Your task to perform on an android device: allow notifications from all sites in the chrome app Image 0: 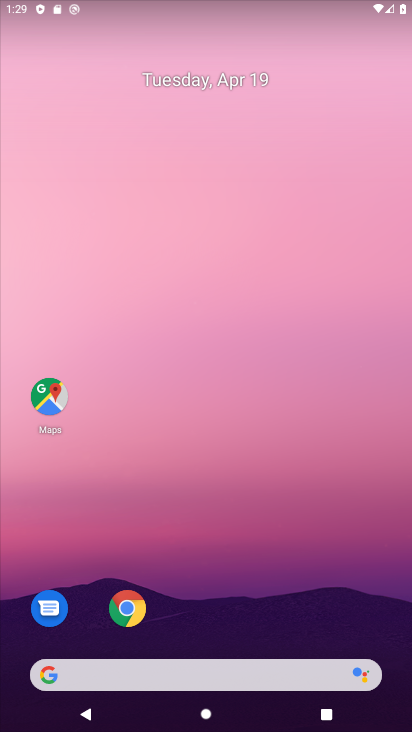
Step 0: click (40, 402)
Your task to perform on an android device: allow notifications from all sites in the chrome app Image 1: 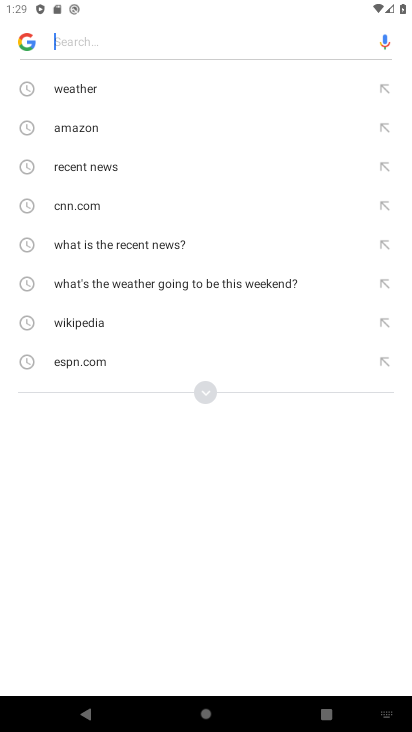
Step 1: press home button
Your task to perform on an android device: allow notifications from all sites in the chrome app Image 2: 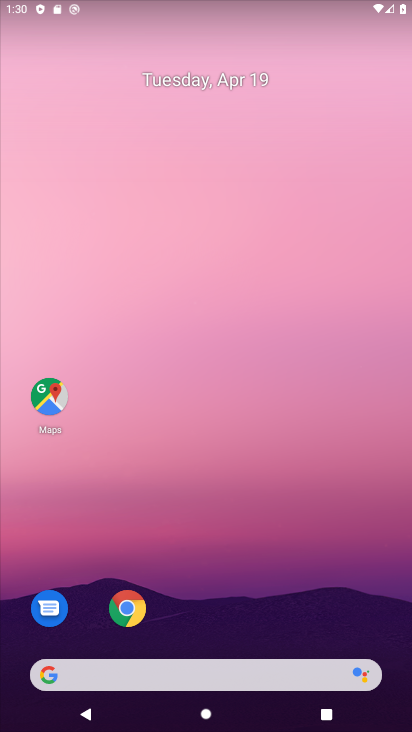
Step 2: click (47, 391)
Your task to perform on an android device: allow notifications from all sites in the chrome app Image 3: 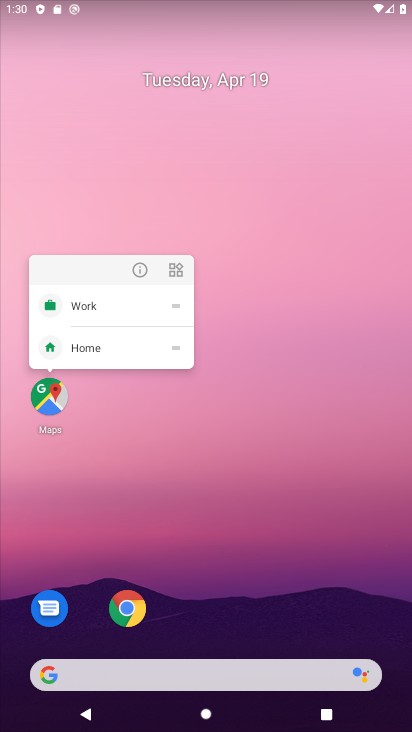
Step 3: click (45, 404)
Your task to perform on an android device: allow notifications from all sites in the chrome app Image 4: 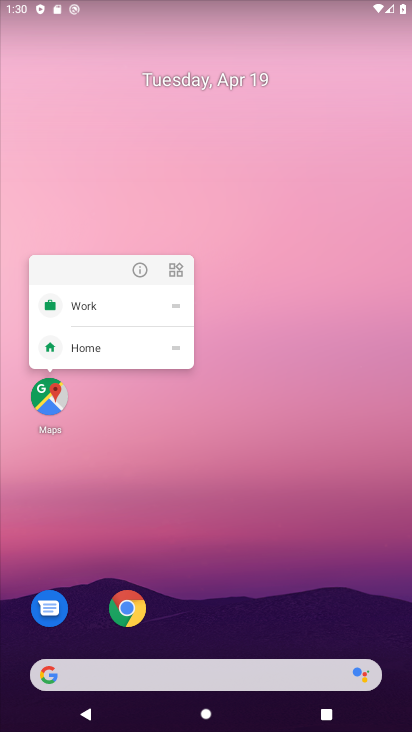
Step 4: click (45, 404)
Your task to perform on an android device: allow notifications from all sites in the chrome app Image 5: 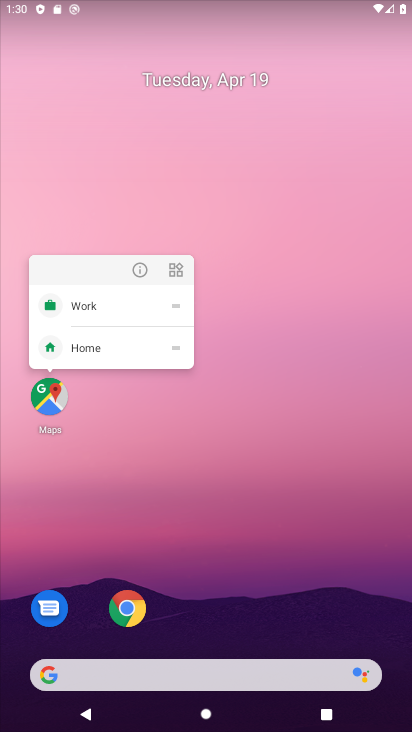
Step 5: click (49, 399)
Your task to perform on an android device: allow notifications from all sites in the chrome app Image 6: 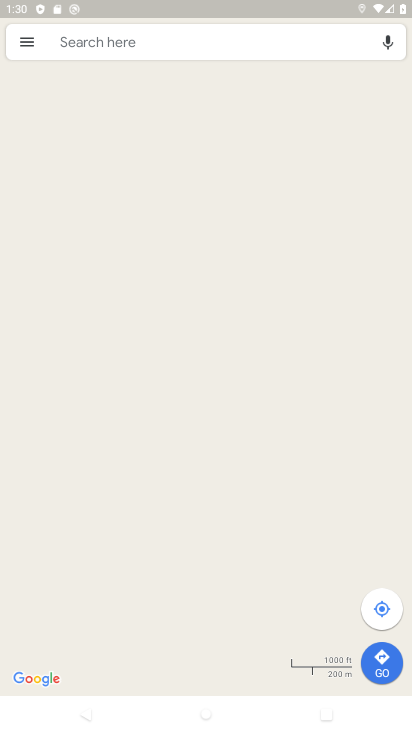
Step 6: click (201, 40)
Your task to perform on an android device: allow notifications from all sites in the chrome app Image 7: 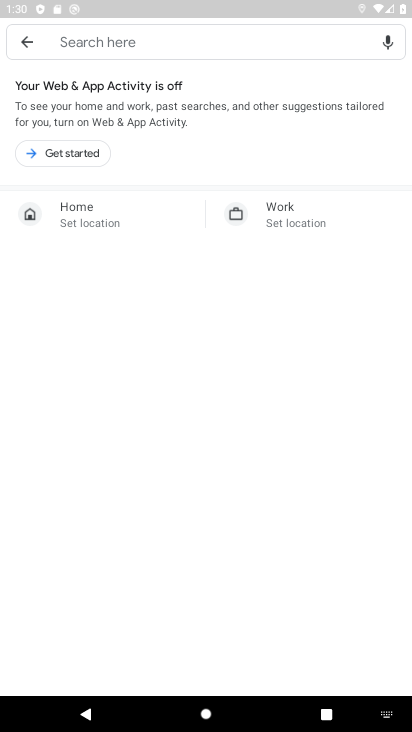
Step 7: press home button
Your task to perform on an android device: allow notifications from all sites in the chrome app Image 8: 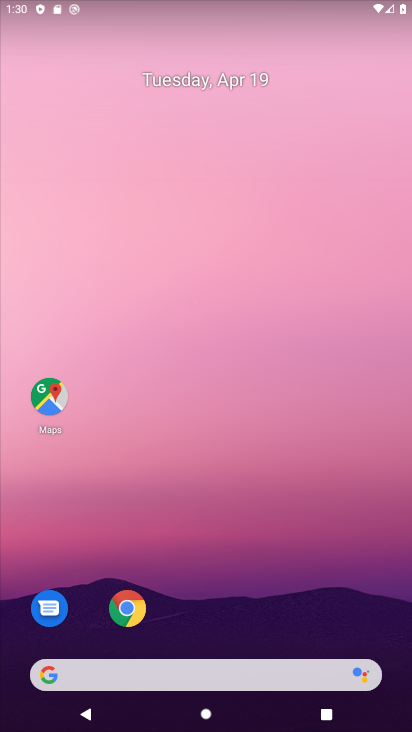
Step 8: click (127, 601)
Your task to perform on an android device: allow notifications from all sites in the chrome app Image 9: 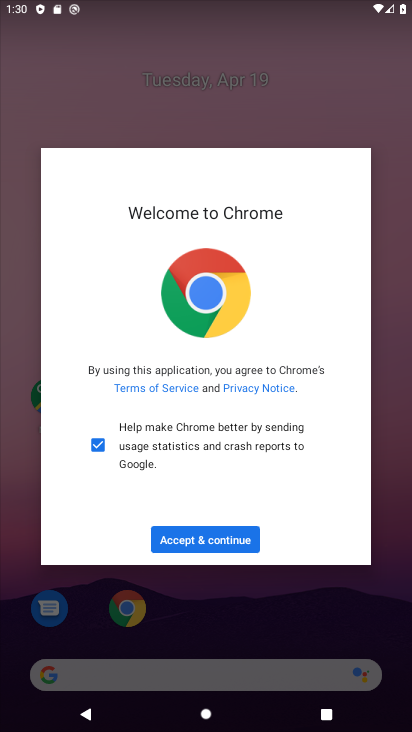
Step 9: click (249, 535)
Your task to perform on an android device: allow notifications from all sites in the chrome app Image 10: 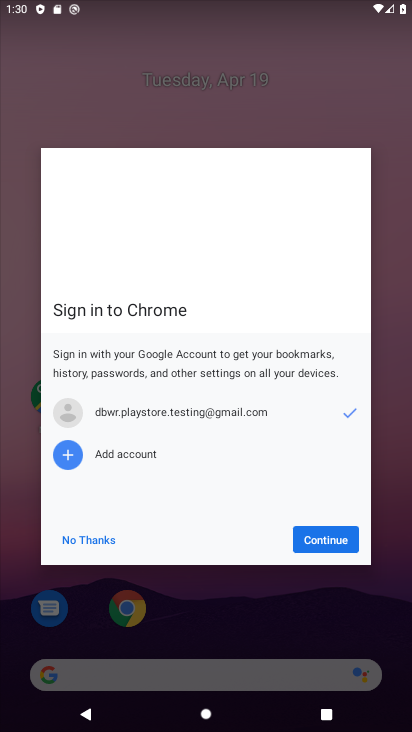
Step 10: click (331, 537)
Your task to perform on an android device: allow notifications from all sites in the chrome app Image 11: 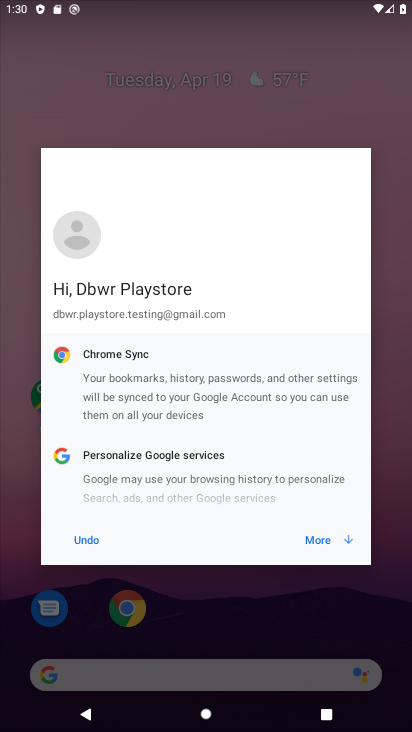
Step 11: click (323, 542)
Your task to perform on an android device: allow notifications from all sites in the chrome app Image 12: 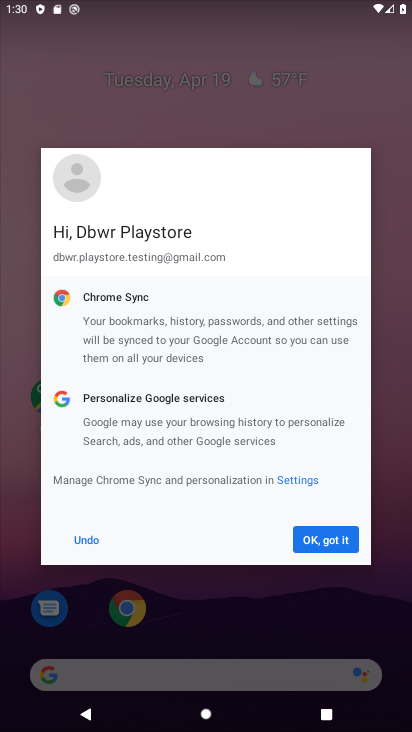
Step 12: click (323, 542)
Your task to perform on an android device: allow notifications from all sites in the chrome app Image 13: 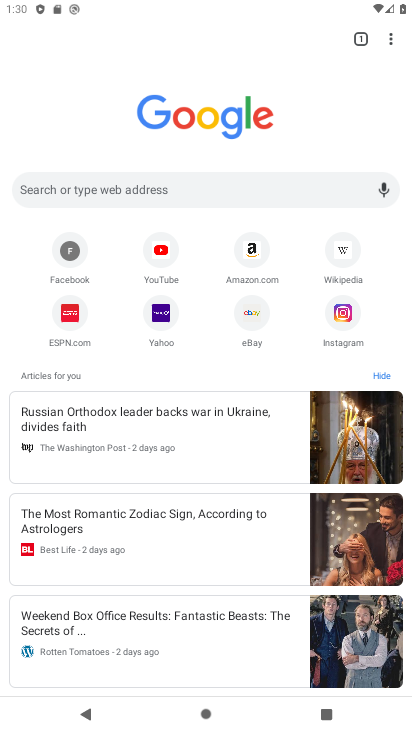
Step 13: click (387, 38)
Your task to perform on an android device: allow notifications from all sites in the chrome app Image 14: 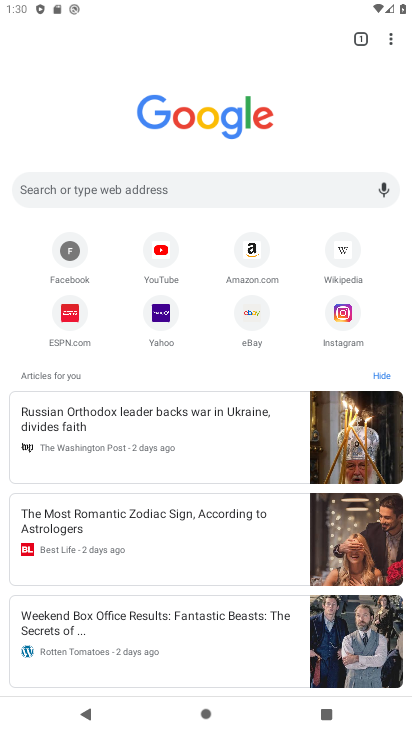
Step 14: click (396, 39)
Your task to perform on an android device: allow notifications from all sites in the chrome app Image 15: 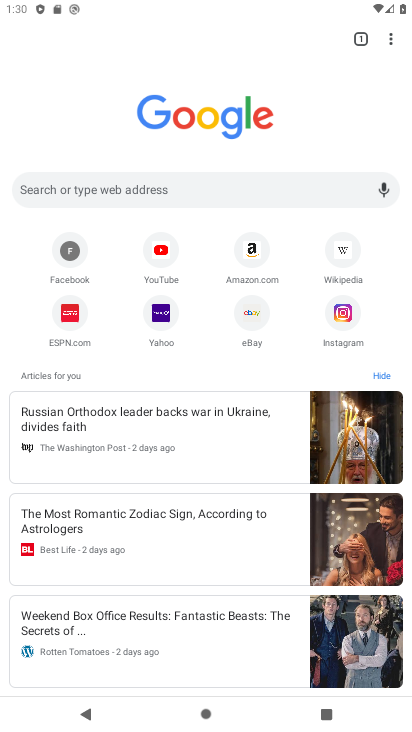
Step 15: click (387, 37)
Your task to perform on an android device: allow notifications from all sites in the chrome app Image 16: 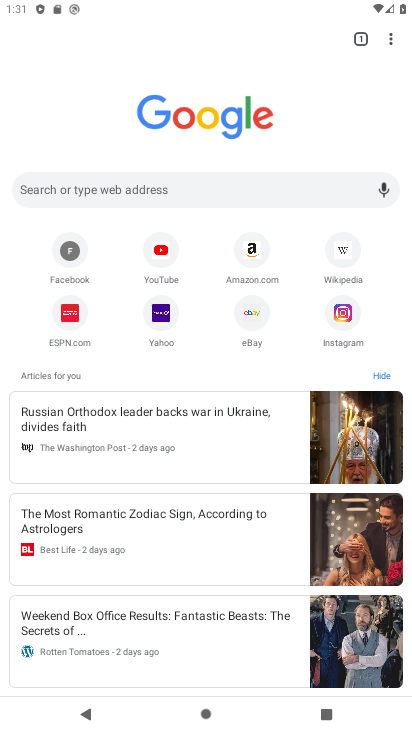
Step 16: click (385, 41)
Your task to perform on an android device: allow notifications from all sites in the chrome app Image 17: 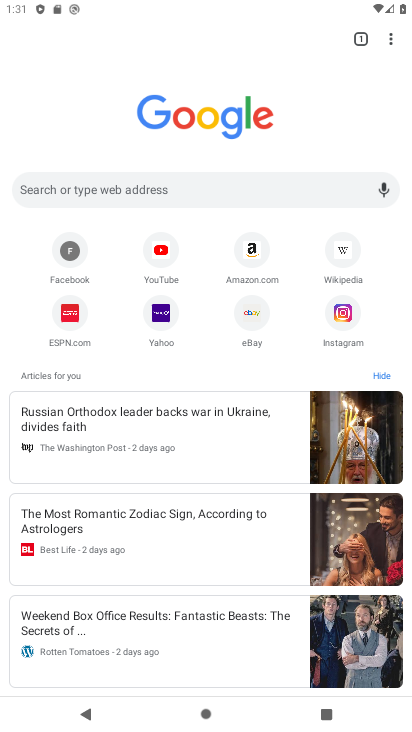
Step 17: click (388, 41)
Your task to perform on an android device: allow notifications from all sites in the chrome app Image 18: 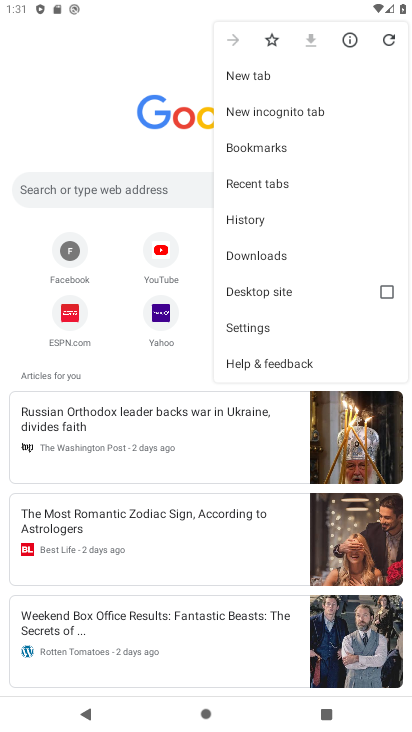
Step 18: click (264, 326)
Your task to perform on an android device: allow notifications from all sites in the chrome app Image 19: 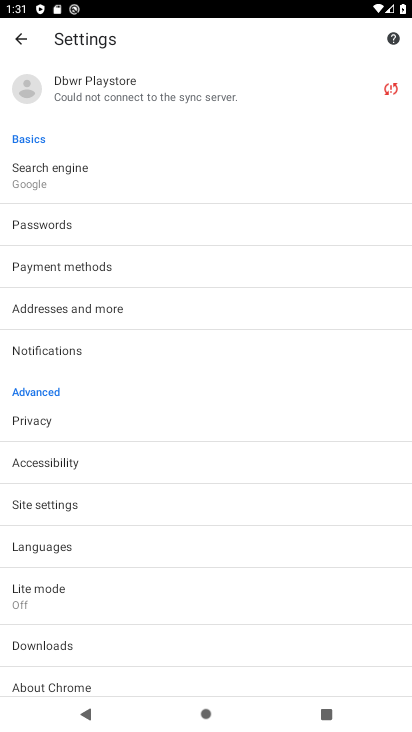
Step 19: click (130, 508)
Your task to perform on an android device: allow notifications from all sites in the chrome app Image 20: 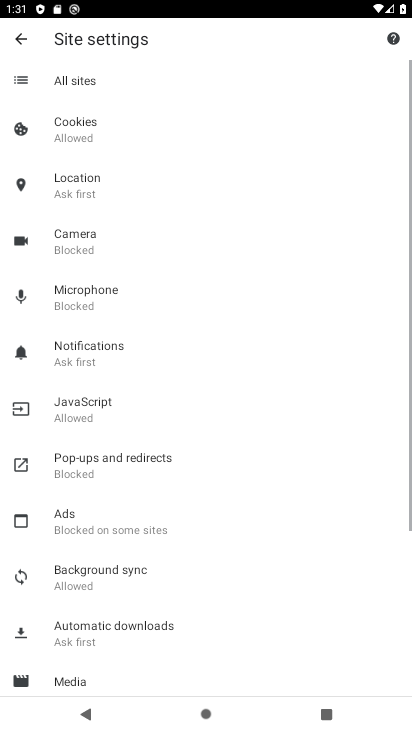
Step 20: click (189, 127)
Your task to perform on an android device: allow notifications from all sites in the chrome app Image 21: 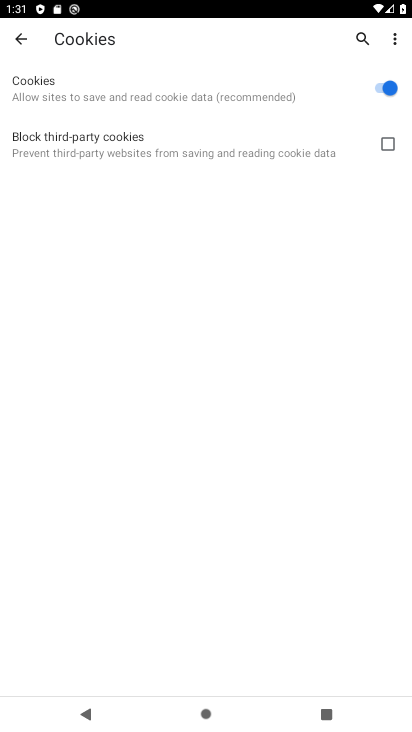
Step 21: task complete